Your task to perform on an android device: toggle javascript in the chrome app Image 0: 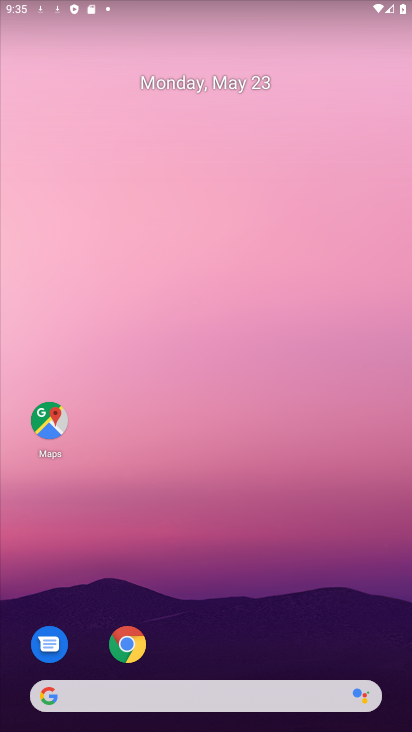
Step 0: drag from (289, 714) to (298, 187)
Your task to perform on an android device: toggle javascript in the chrome app Image 1: 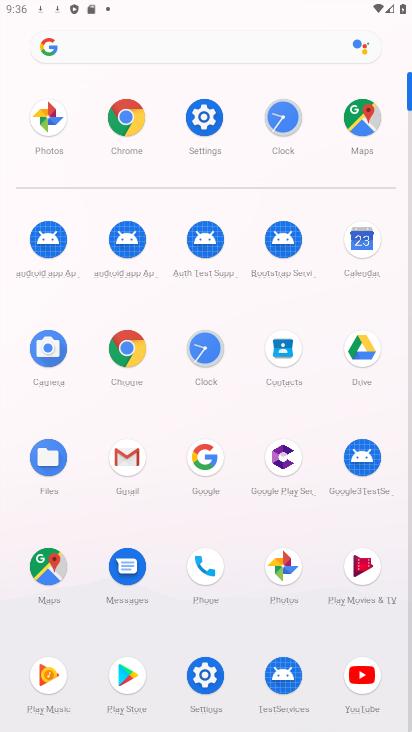
Step 1: click (127, 135)
Your task to perform on an android device: toggle javascript in the chrome app Image 2: 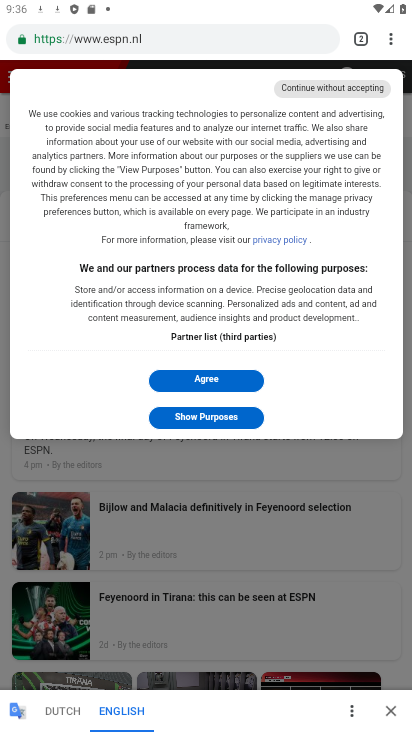
Step 2: click (388, 45)
Your task to perform on an android device: toggle javascript in the chrome app Image 3: 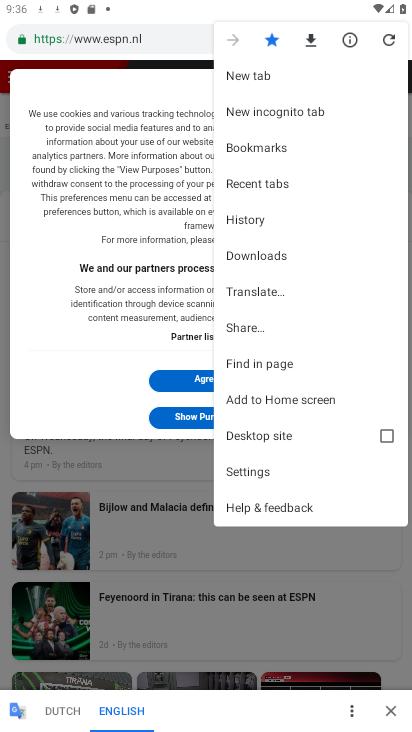
Step 3: click (258, 474)
Your task to perform on an android device: toggle javascript in the chrome app Image 4: 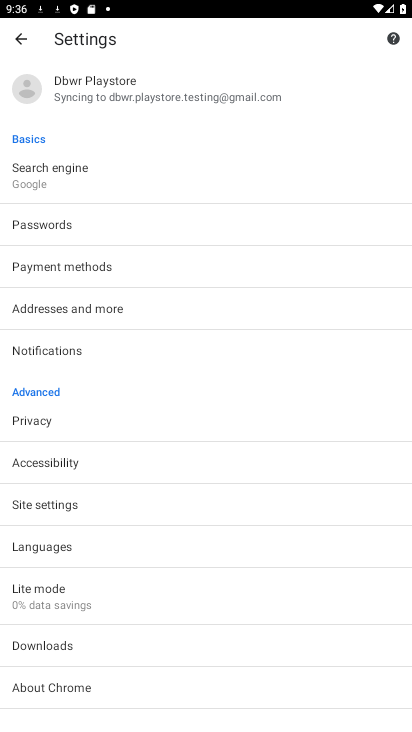
Step 4: click (68, 505)
Your task to perform on an android device: toggle javascript in the chrome app Image 5: 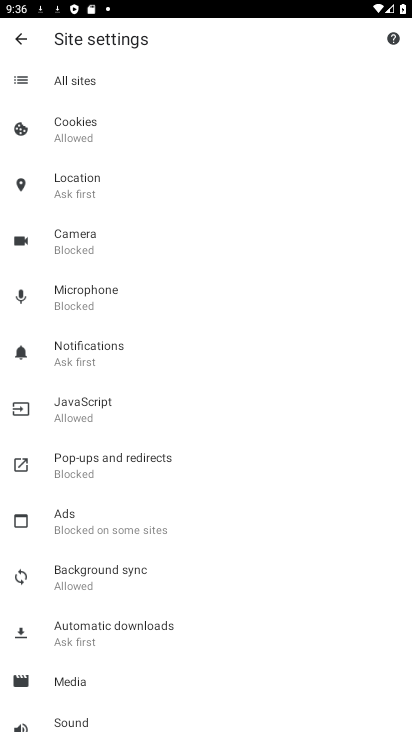
Step 5: click (71, 399)
Your task to perform on an android device: toggle javascript in the chrome app Image 6: 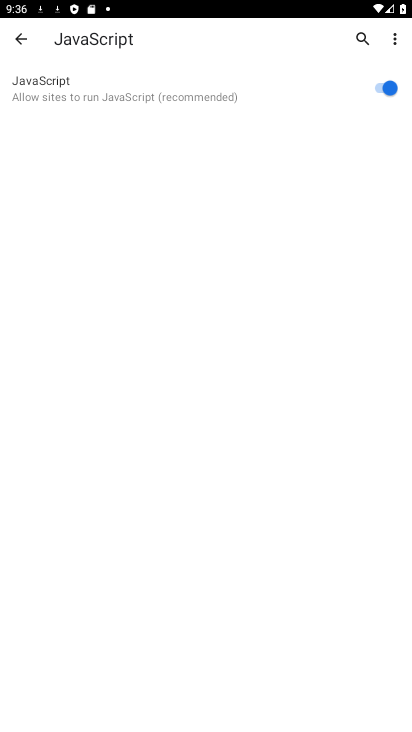
Step 6: task complete